Your task to perform on an android device: What's the weather today? Image 0: 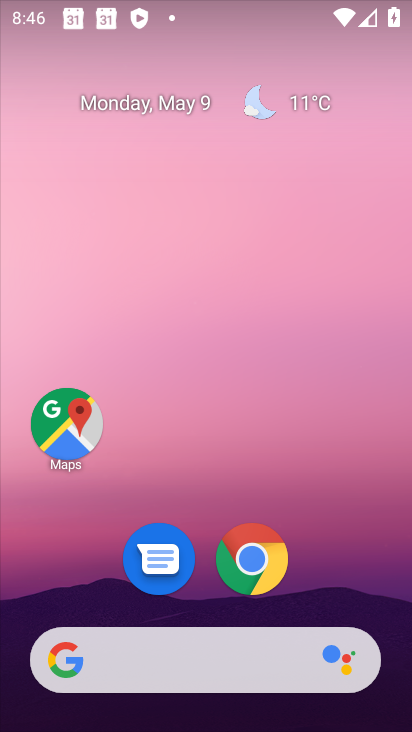
Step 0: drag from (377, 597) to (197, 11)
Your task to perform on an android device: What's the weather today? Image 1: 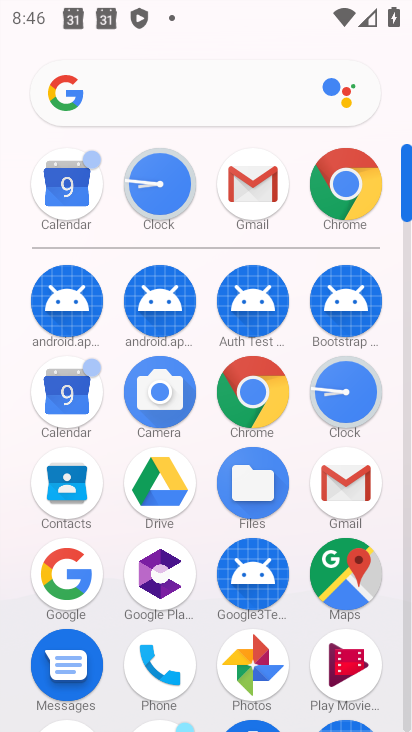
Step 1: task complete